Your task to perform on an android device: Open accessibility settings Image 0: 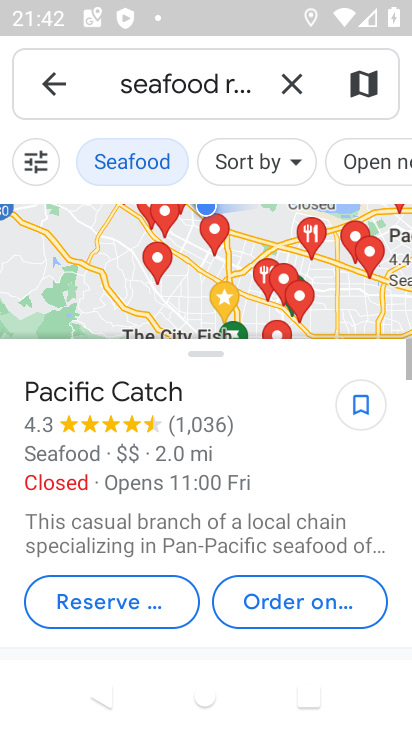
Step 0: press home button
Your task to perform on an android device: Open accessibility settings Image 1: 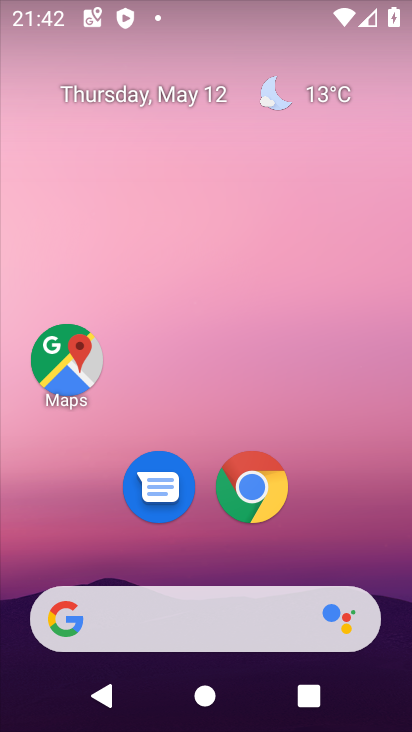
Step 1: drag from (152, 706) to (172, 350)
Your task to perform on an android device: Open accessibility settings Image 2: 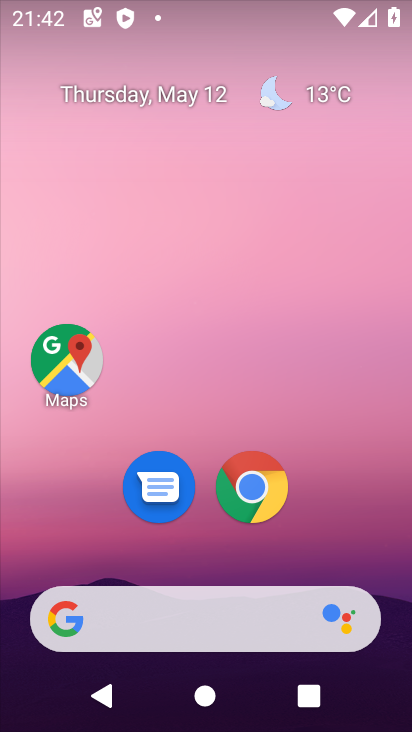
Step 2: drag from (172, 680) to (230, 295)
Your task to perform on an android device: Open accessibility settings Image 3: 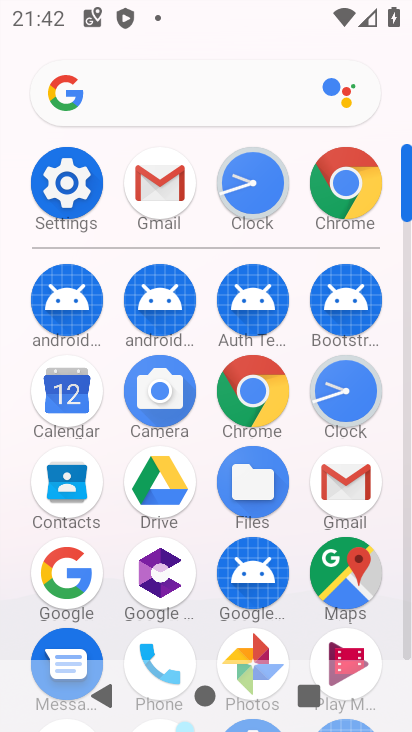
Step 3: click (60, 162)
Your task to perform on an android device: Open accessibility settings Image 4: 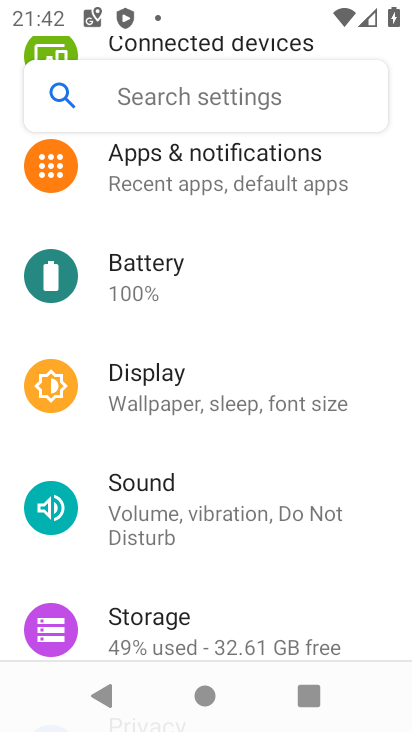
Step 4: drag from (162, 577) to (220, 80)
Your task to perform on an android device: Open accessibility settings Image 5: 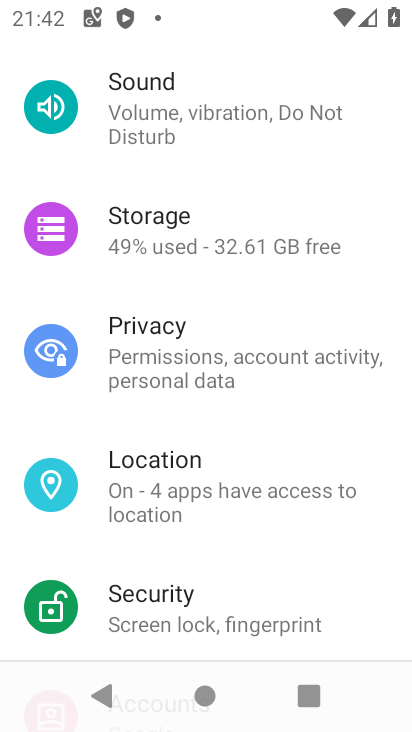
Step 5: drag from (150, 574) to (267, 52)
Your task to perform on an android device: Open accessibility settings Image 6: 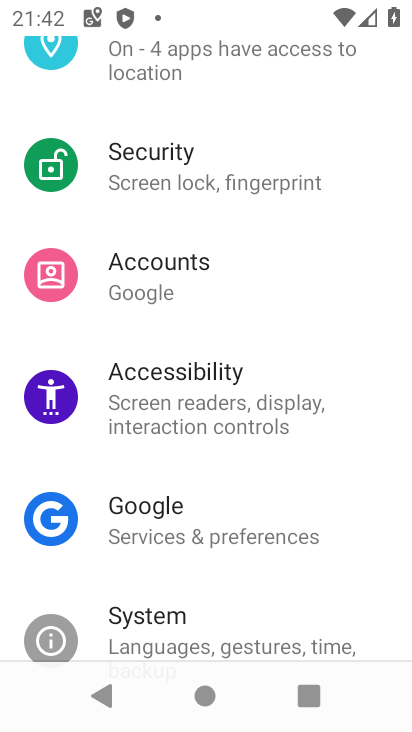
Step 6: click (238, 381)
Your task to perform on an android device: Open accessibility settings Image 7: 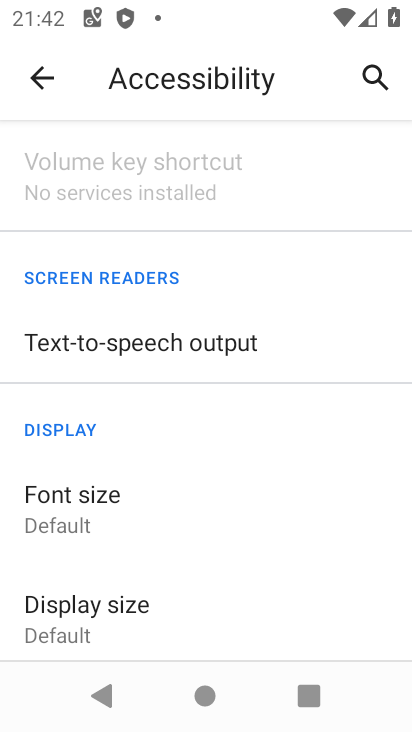
Step 7: task complete